Your task to perform on an android device: install app "Adobe Express: Graphic Design" Image 0: 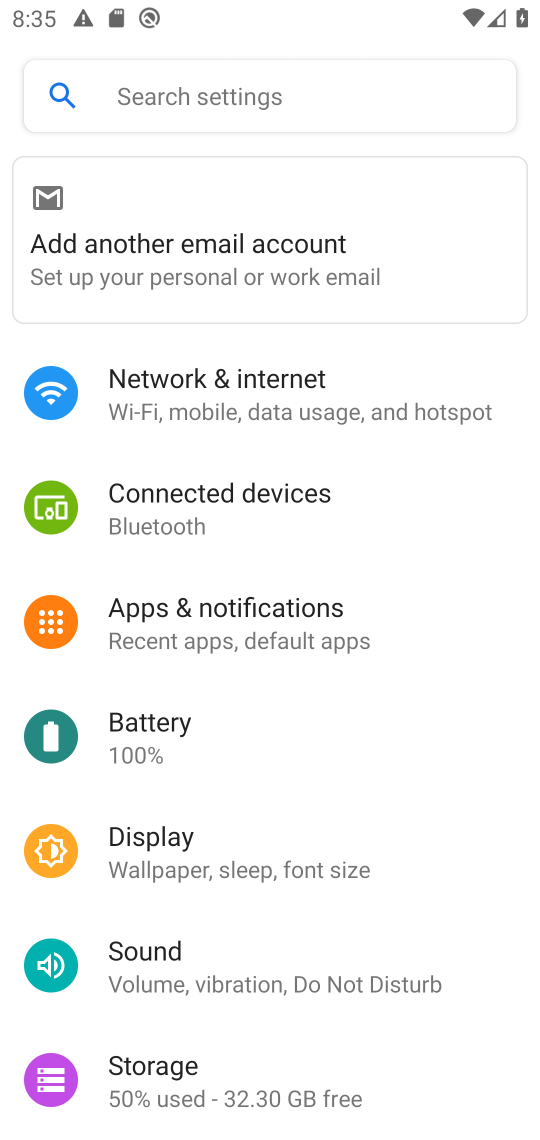
Step 0: press home button
Your task to perform on an android device: install app "Adobe Express: Graphic Design" Image 1: 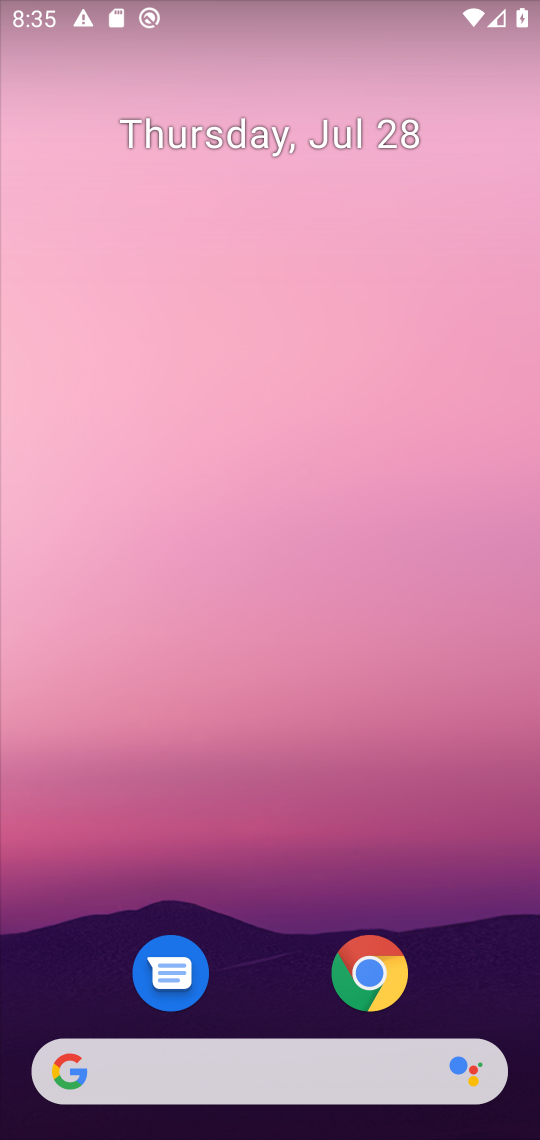
Step 1: drag from (238, 887) to (255, 19)
Your task to perform on an android device: install app "Adobe Express: Graphic Design" Image 2: 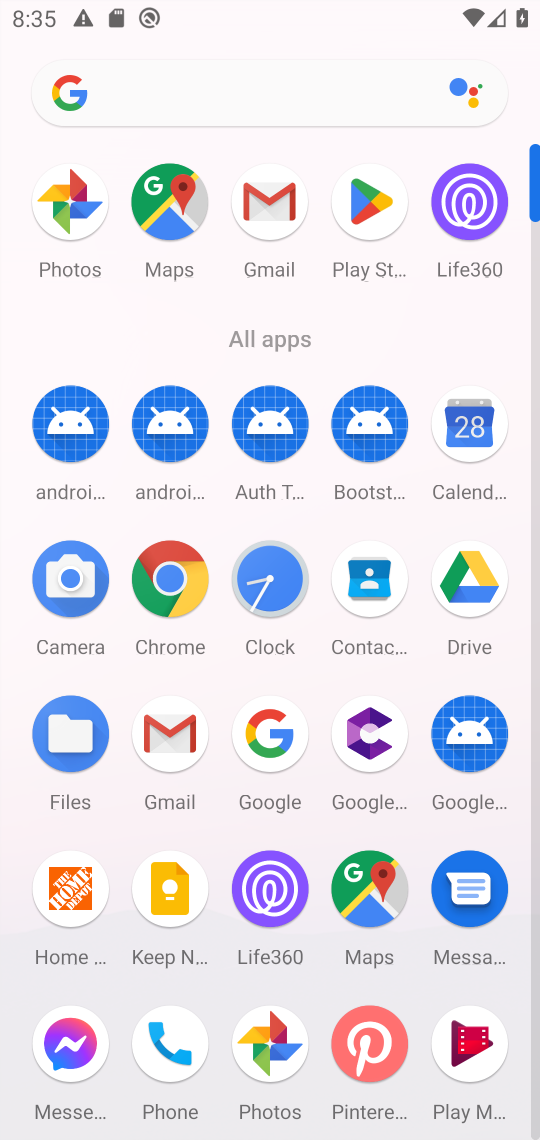
Step 2: click (370, 236)
Your task to perform on an android device: install app "Adobe Express: Graphic Design" Image 3: 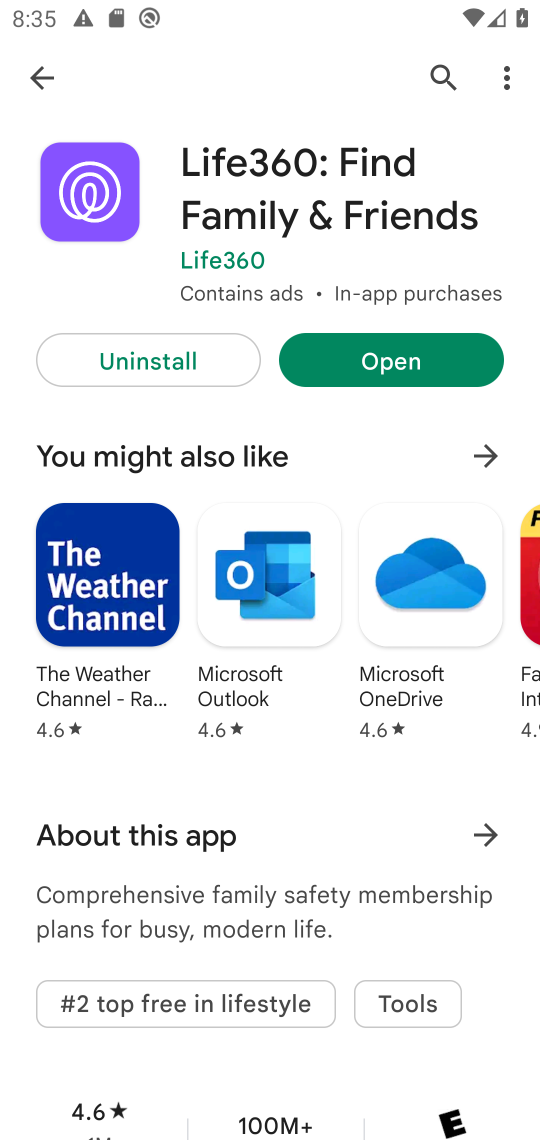
Step 3: click (39, 78)
Your task to perform on an android device: install app "Adobe Express: Graphic Design" Image 4: 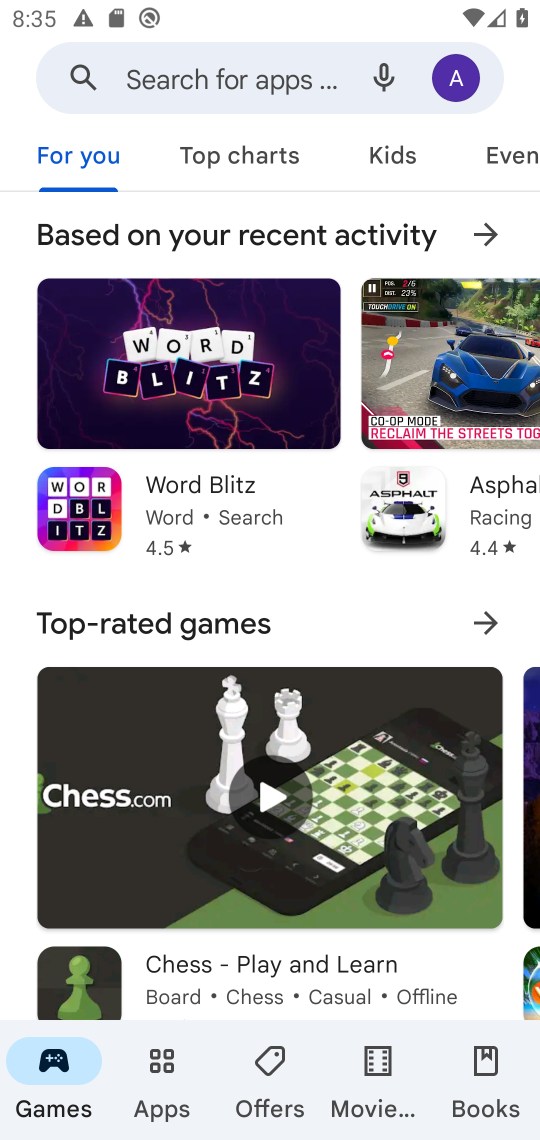
Step 4: click (204, 86)
Your task to perform on an android device: install app "Adobe Express: Graphic Design" Image 5: 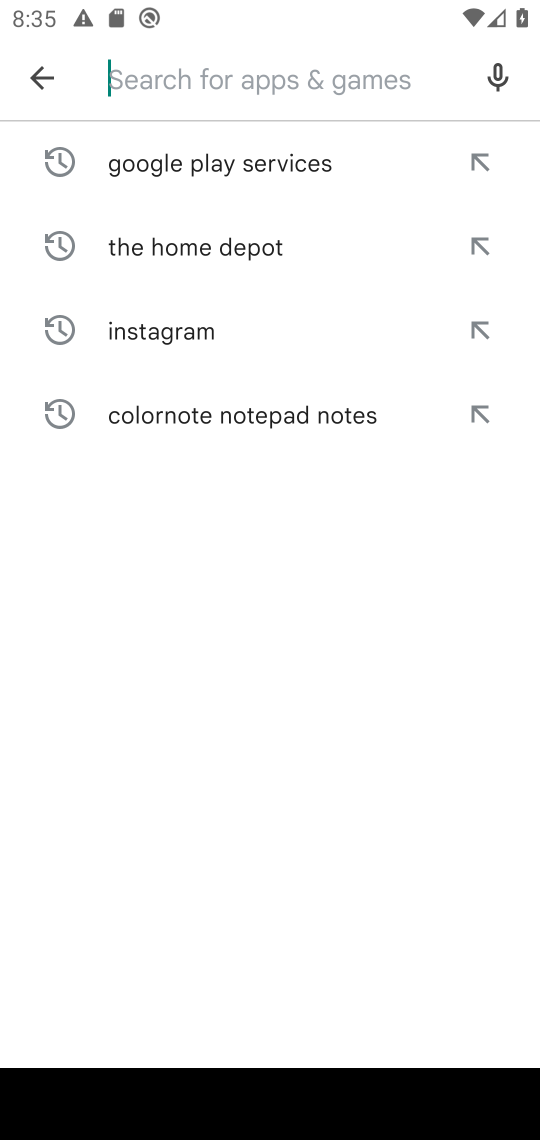
Step 5: type "Adobe Express: Graphic Design"
Your task to perform on an android device: install app "Adobe Express: Graphic Design" Image 6: 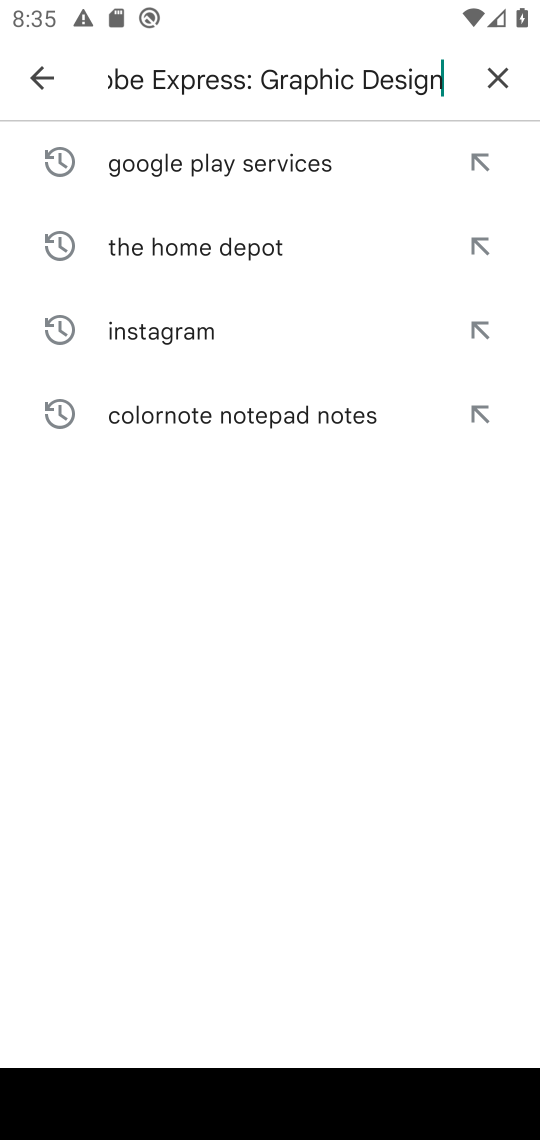
Step 6: type ""
Your task to perform on an android device: install app "Adobe Express: Graphic Design" Image 7: 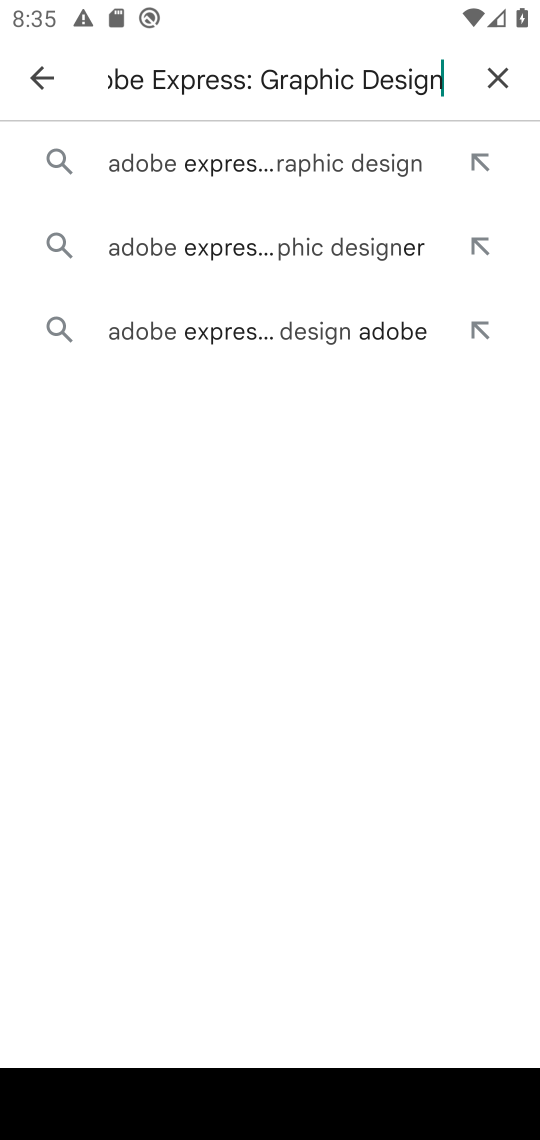
Step 7: click (157, 173)
Your task to perform on an android device: install app "Adobe Express: Graphic Design" Image 8: 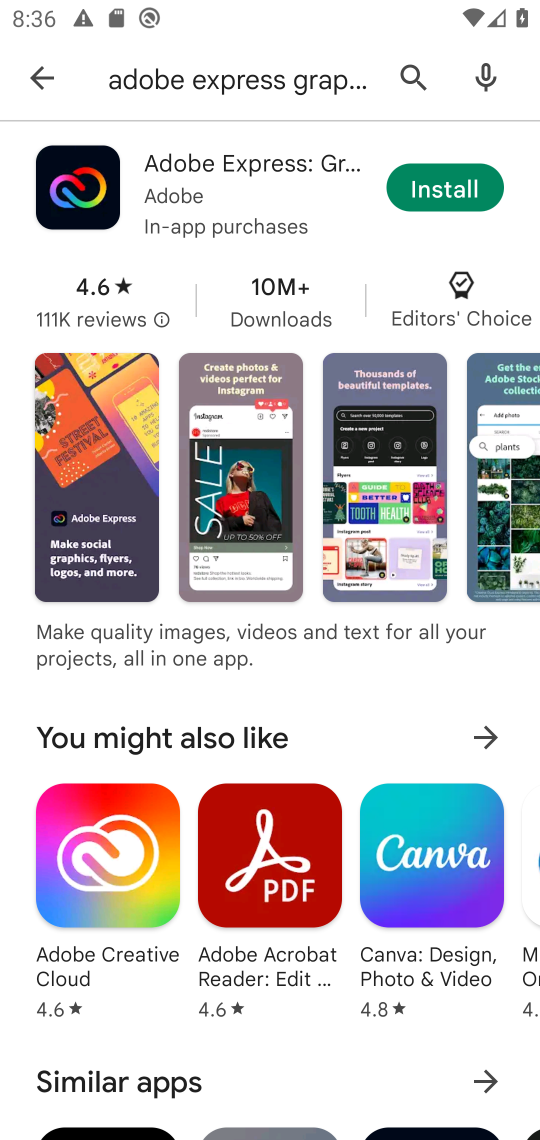
Step 8: click (449, 197)
Your task to perform on an android device: install app "Adobe Express: Graphic Design" Image 9: 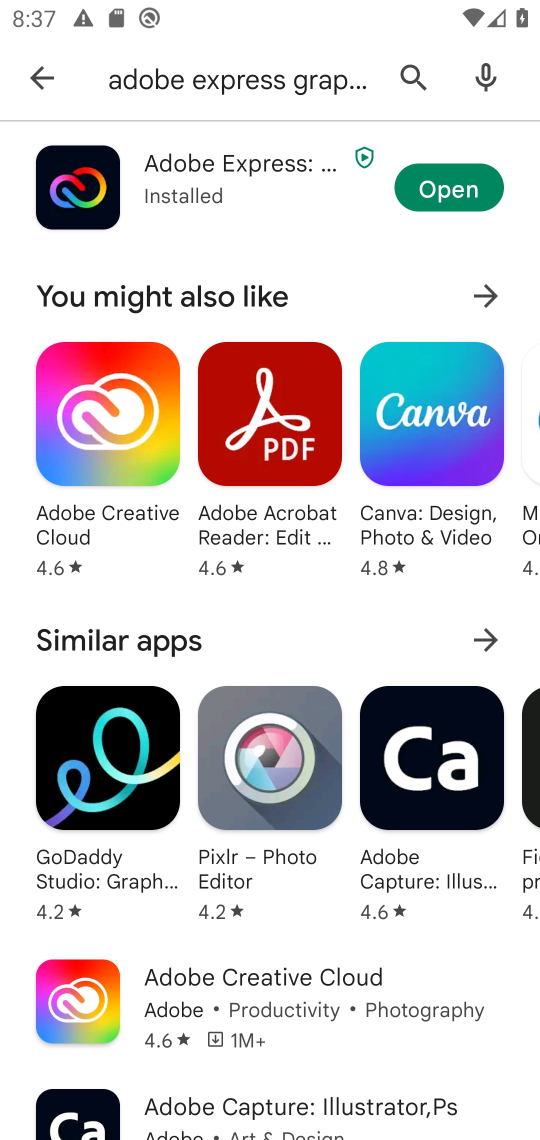
Step 9: task complete